Your task to perform on an android device: Go to Wikipedia Image 0: 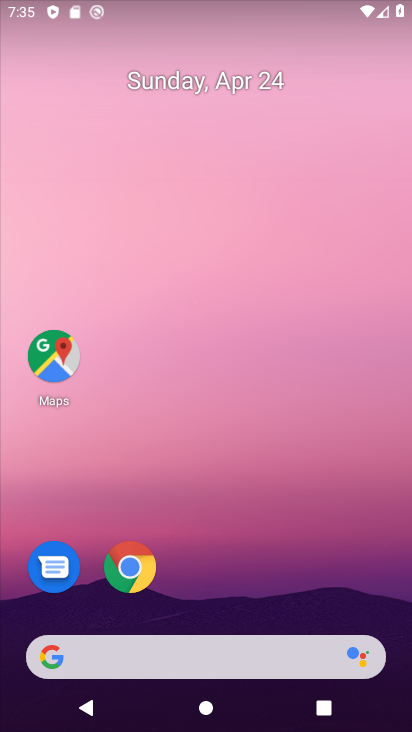
Step 0: click (146, 561)
Your task to perform on an android device: Go to Wikipedia Image 1: 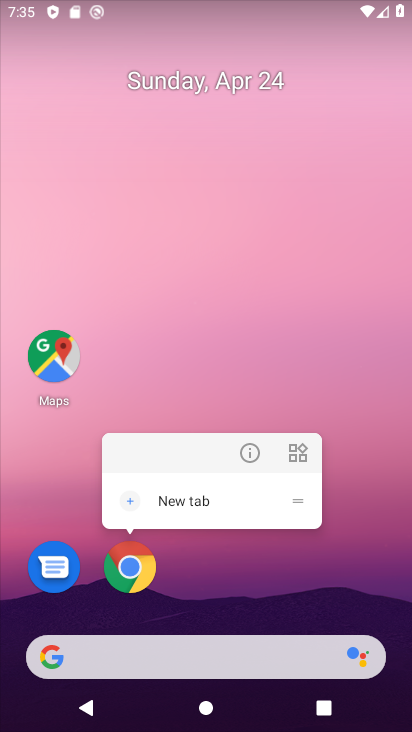
Step 1: click (145, 567)
Your task to perform on an android device: Go to Wikipedia Image 2: 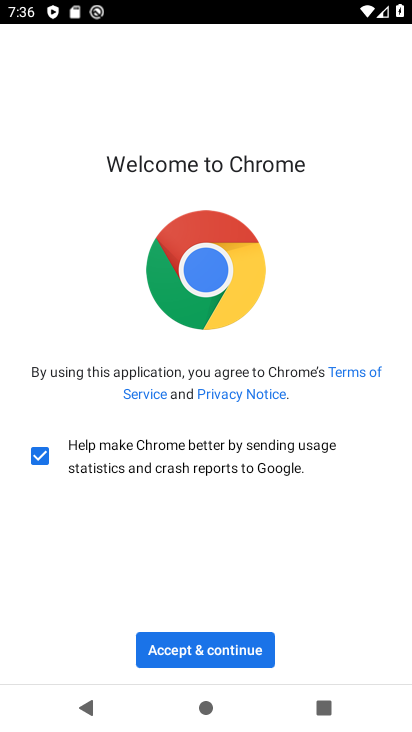
Step 2: click (214, 655)
Your task to perform on an android device: Go to Wikipedia Image 3: 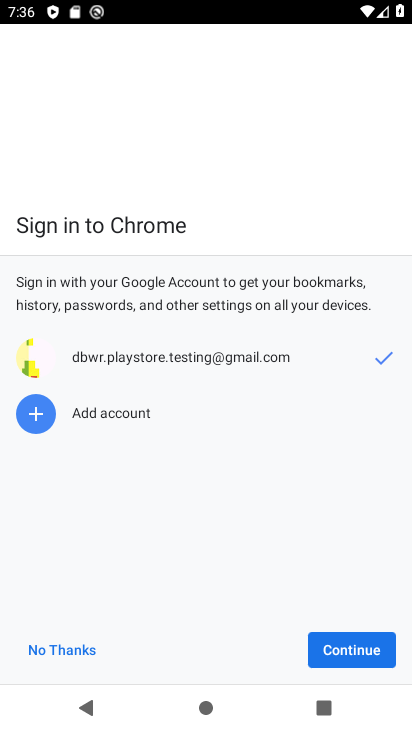
Step 3: click (334, 645)
Your task to perform on an android device: Go to Wikipedia Image 4: 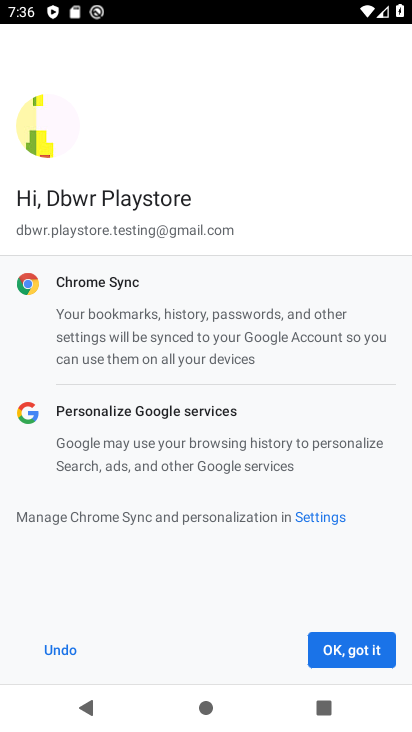
Step 4: click (335, 646)
Your task to perform on an android device: Go to Wikipedia Image 5: 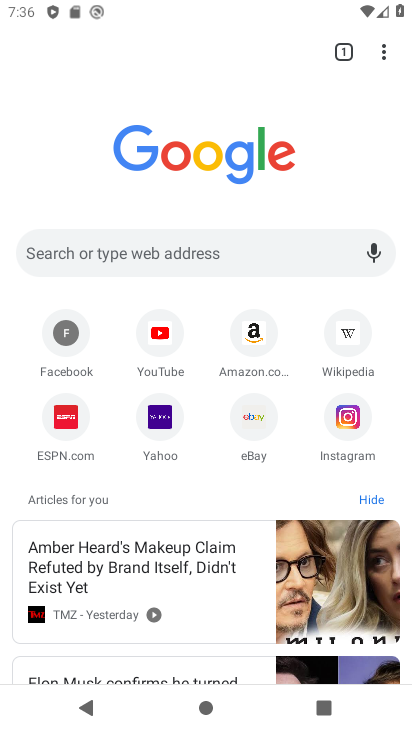
Step 5: click (338, 346)
Your task to perform on an android device: Go to Wikipedia Image 6: 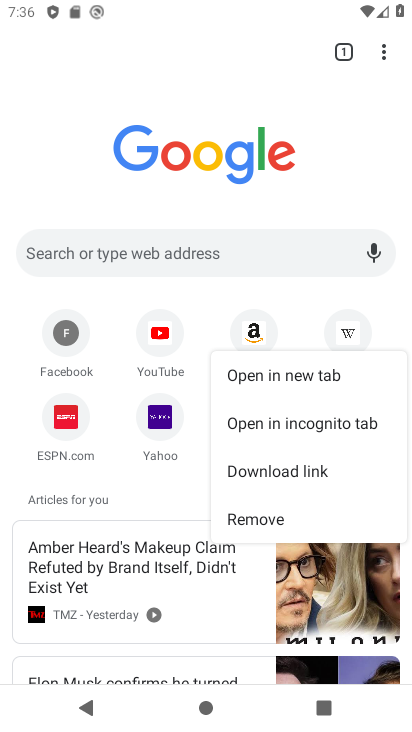
Step 6: click (378, 326)
Your task to perform on an android device: Go to Wikipedia Image 7: 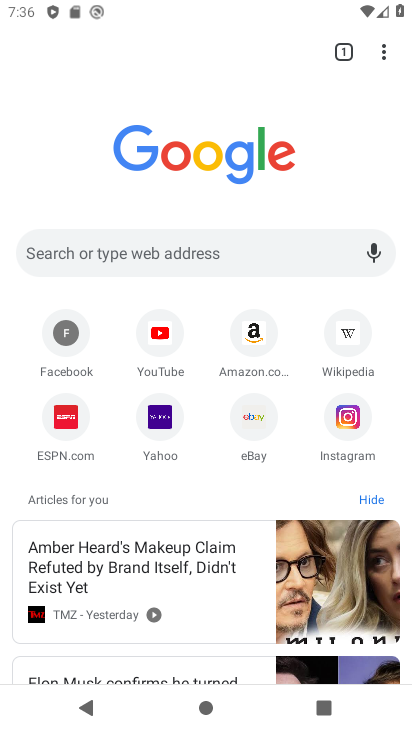
Step 7: click (351, 316)
Your task to perform on an android device: Go to Wikipedia Image 8: 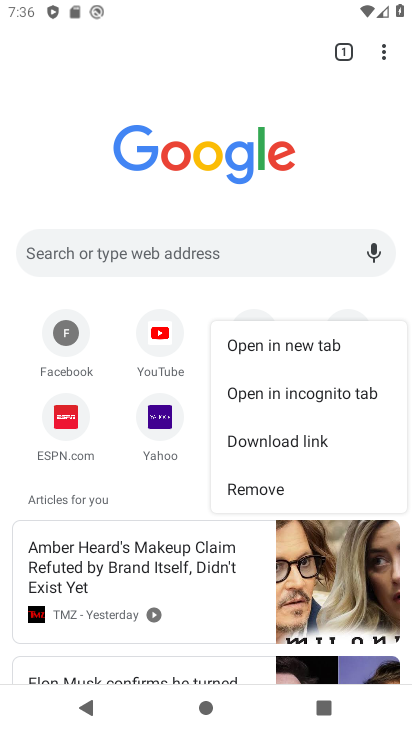
Step 8: click (369, 292)
Your task to perform on an android device: Go to Wikipedia Image 9: 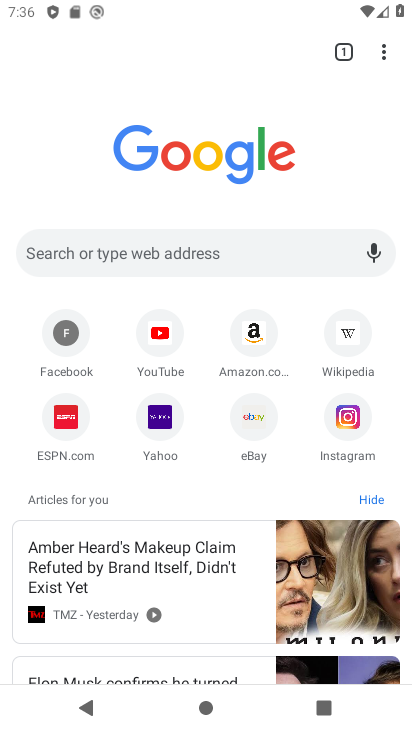
Step 9: click (347, 338)
Your task to perform on an android device: Go to Wikipedia Image 10: 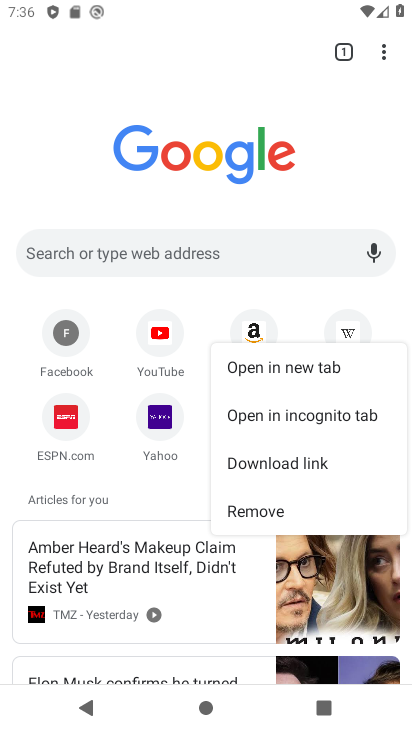
Step 10: click (353, 327)
Your task to perform on an android device: Go to Wikipedia Image 11: 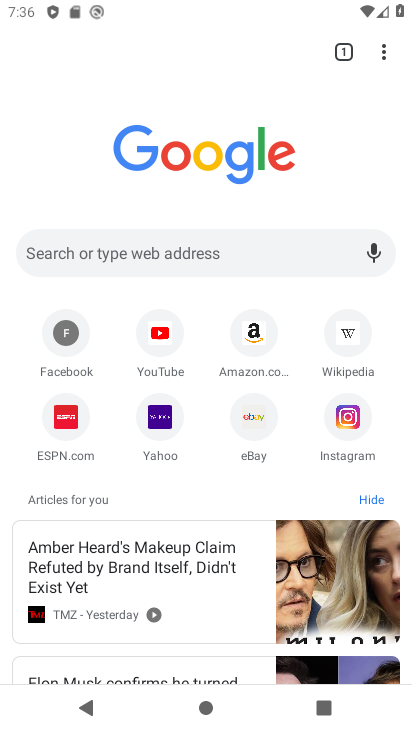
Step 11: click (348, 347)
Your task to perform on an android device: Go to Wikipedia Image 12: 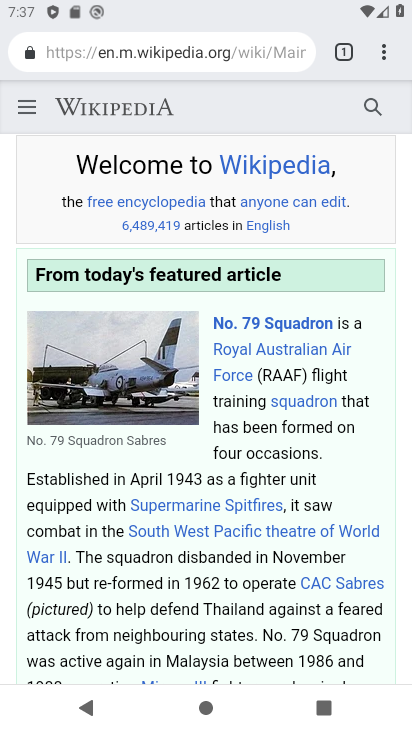
Step 12: task complete